Your task to perform on an android device: empty trash in the gmail app Image 0: 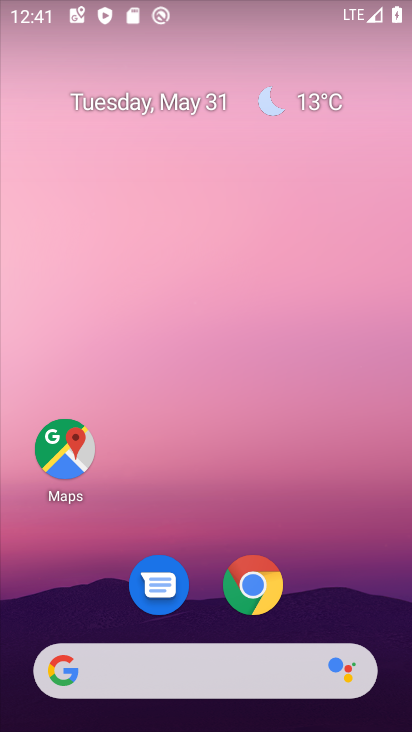
Step 0: click (256, 589)
Your task to perform on an android device: empty trash in the gmail app Image 1: 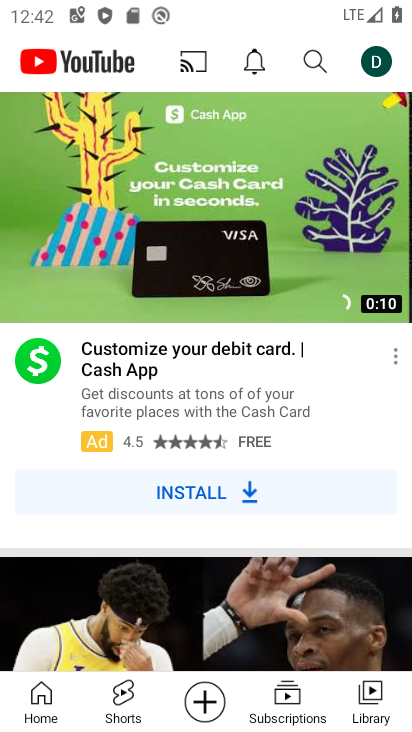
Step 1: press home button
Your task to perform on an android device: empty trash in the gmail app Image 2: 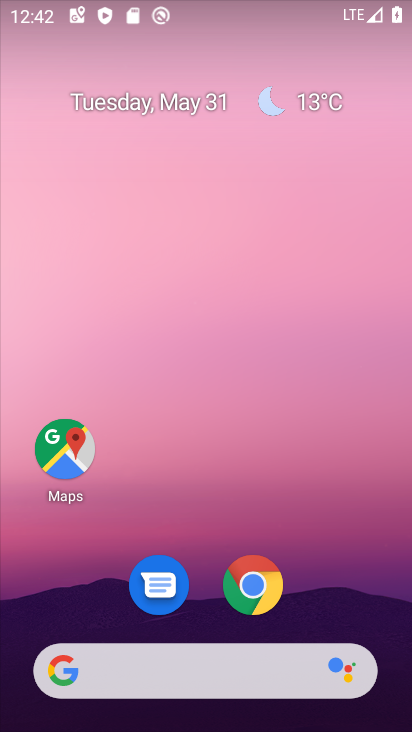
Step 2: drag from (295, 521) to (258, 89)
Your task to perform on an android device: empty trash in the gmail app Image 3: 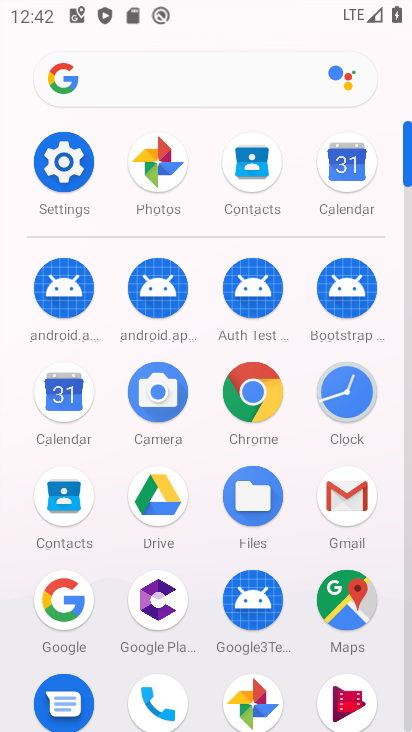
Step 3: click (352, 510)
Your task to perform on an android device: empty trash in the gmail app Image 4: 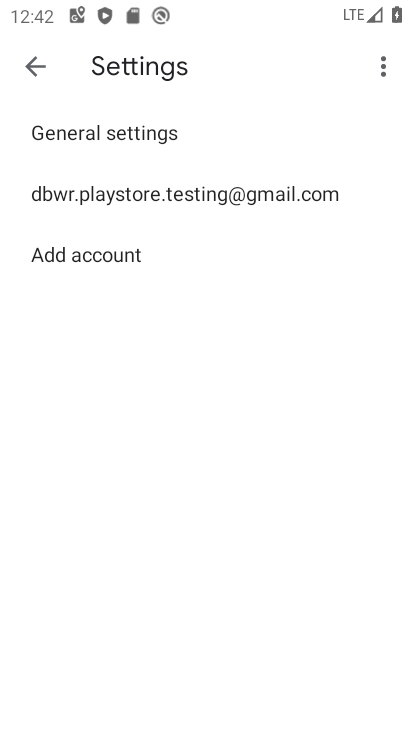
Step 4: click (28, 59)
Your task to perform on an android device: empty trash in the gmail app Image 5: 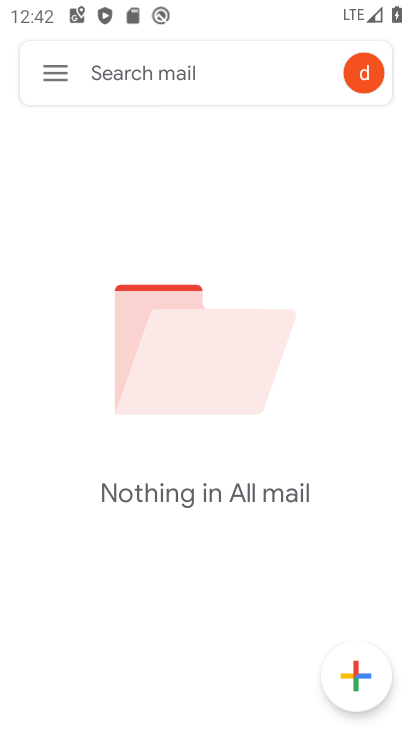
Step 5: click (46, 64)
Your task to perform on an android device: empty trash in the gmail app Image 6: 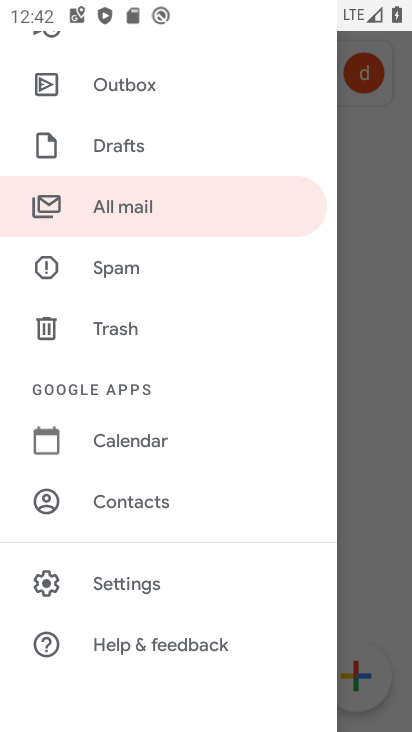
Step 6: click (125, 329)
Your task to perform on an android device: empty trash in the gmail app Image 7: 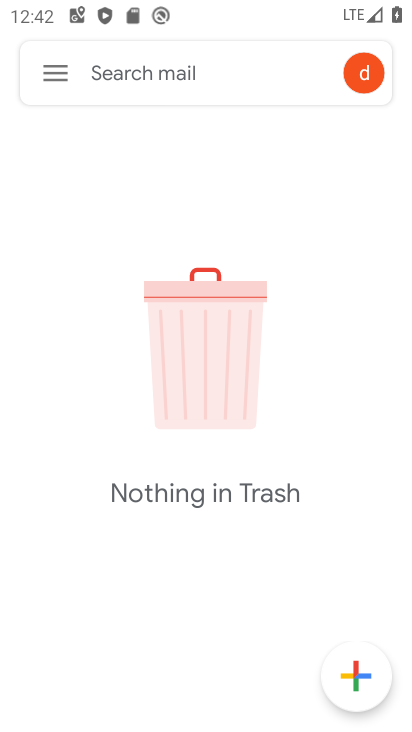
Step 7: task complete